Your task to perform on an android device: Open the phone app and click the voicemail tab. Image 0: 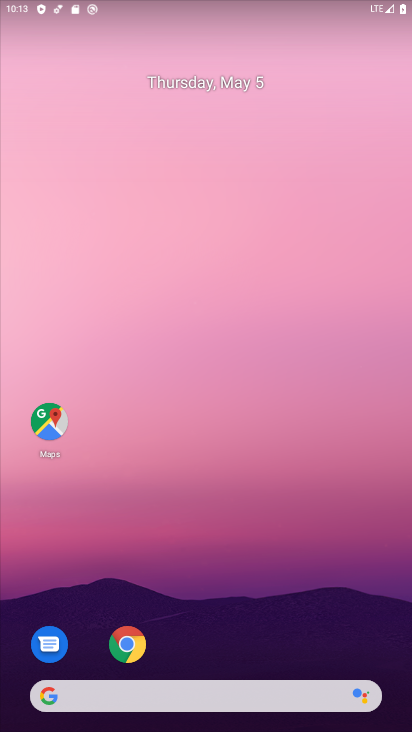
Step 0: drag from (202, 664) to (167, 223)
Your task to perform on an android device: Open the phone app and click the voicemail tab. Image 1: 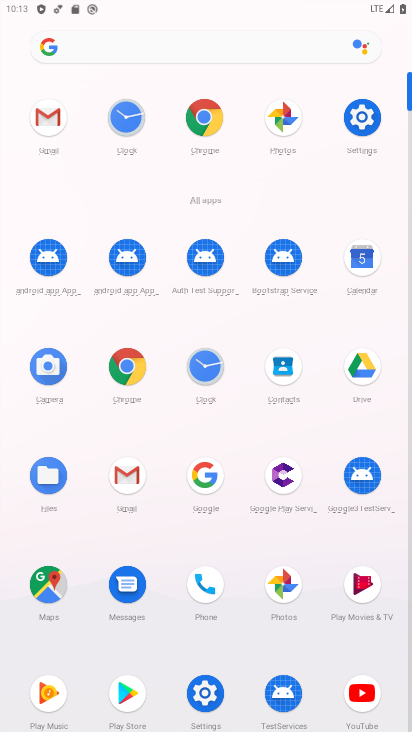
Step 1: click (198, 587)
Your task to perform on an android device: Open the phone app and click the voicemail tab. Image 2: 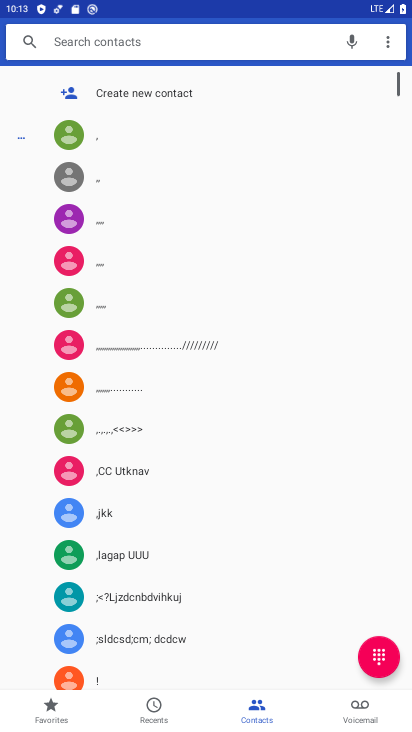
Step 2: click (356, 716)
Your task to perform on an android device: Open the phone app and click the voicemail tab. Image 3: 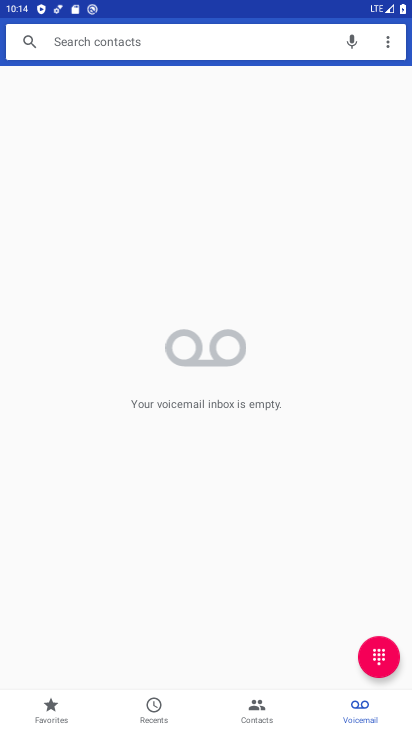
Step 3: task complete